Your task to perform on an android device: check out phone information Image 0: 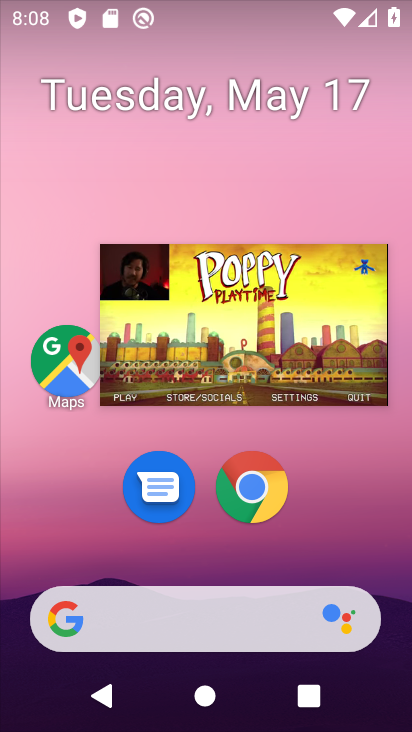
Step 0: click (371, 255)
Your task to perform on an android device: check out phone information Image 1: 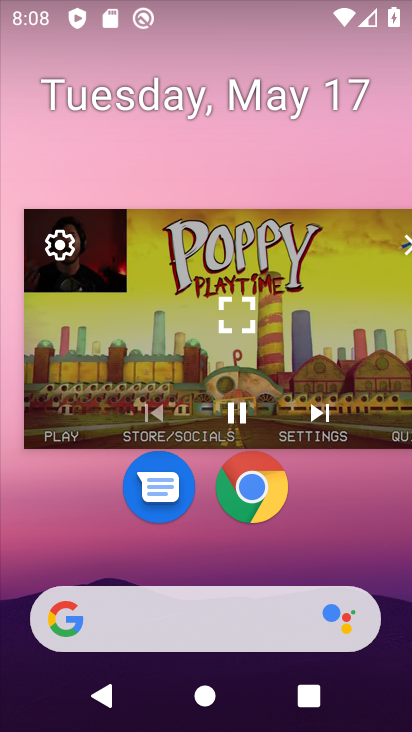
Step 1: click (409, 239)
Your task to perform on an android device: check out phone information Image 2: 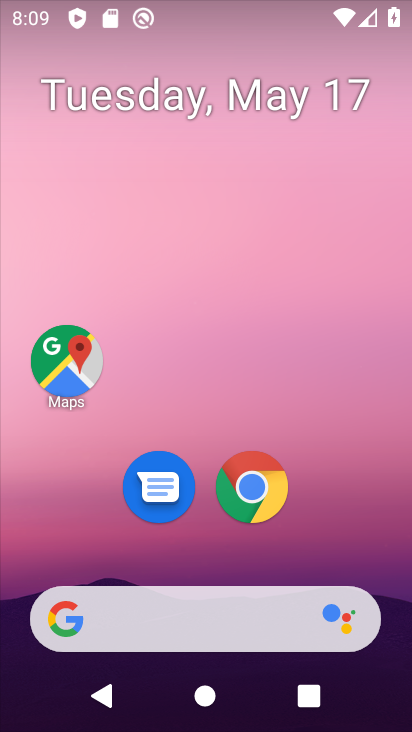
Step 2: drag from (268, 649) to (221, 106)
Your task to perform on an android device: check out phone information Image 3: 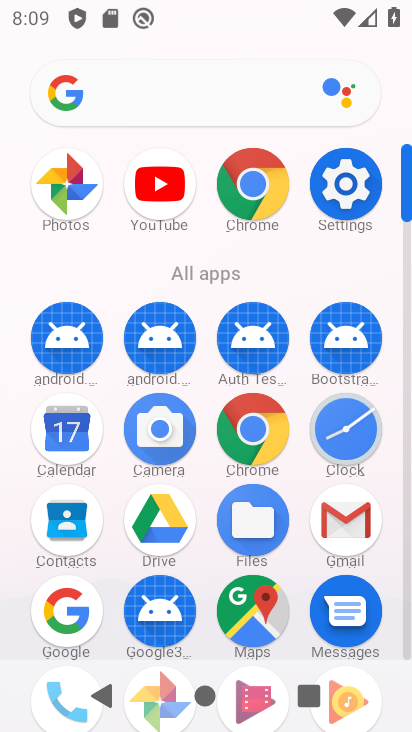
Step 3: click (337, 200)
Your task to perform on an android device: check out phone information Image 4: 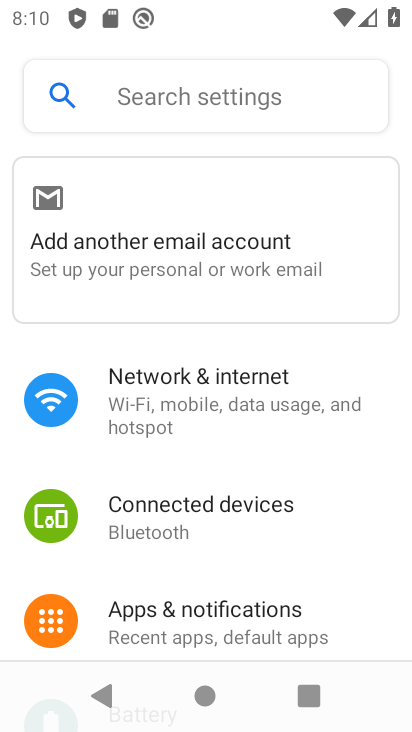
Step 4: click (158, 112)
Your task to perform on an android device: check out phone information Image 5: 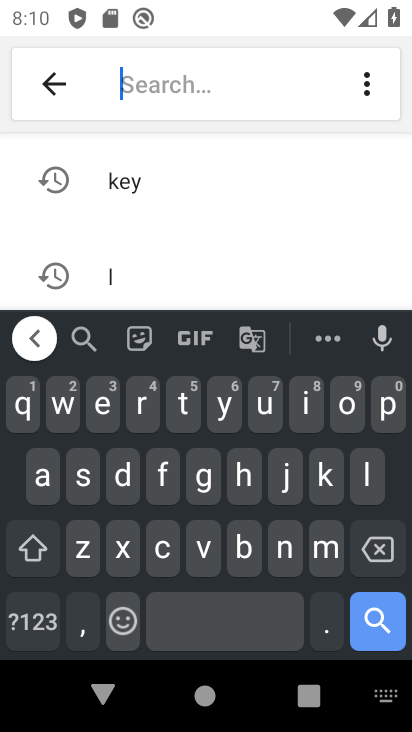
Step 5: click (49, 473)
Your task to perform on an android device: check out phone information Image 6: 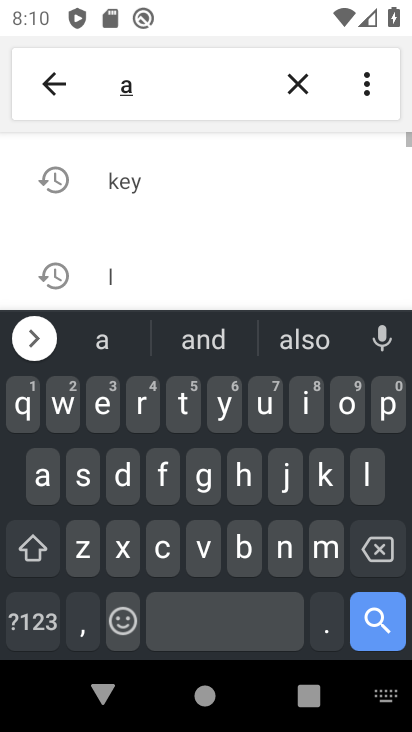
Step 6: click (229, 555)
Your task to perform on an android device: check out phone information Image 7: 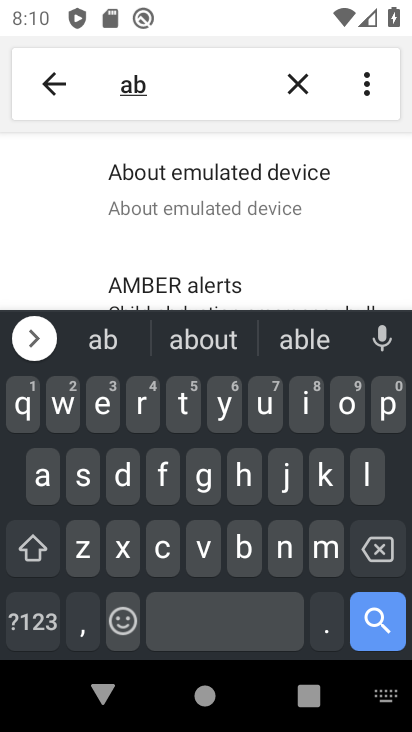
Step 7: click (221, 172)
Your task to perform on an android device: check out phone information Image 8: 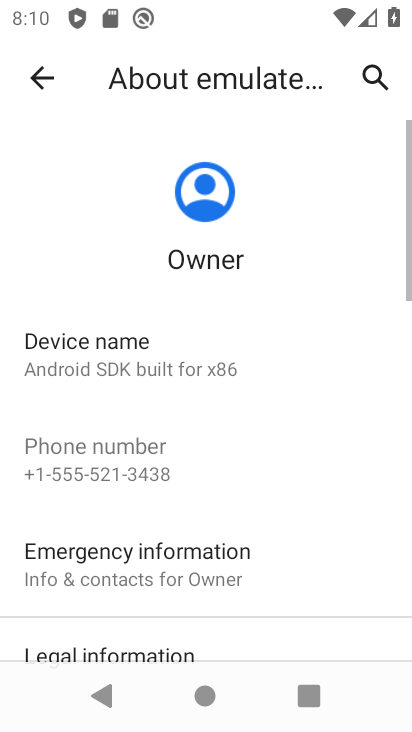
Step 8: task complete